Your task to perform on an android device: Do I have any events today? Image 0: 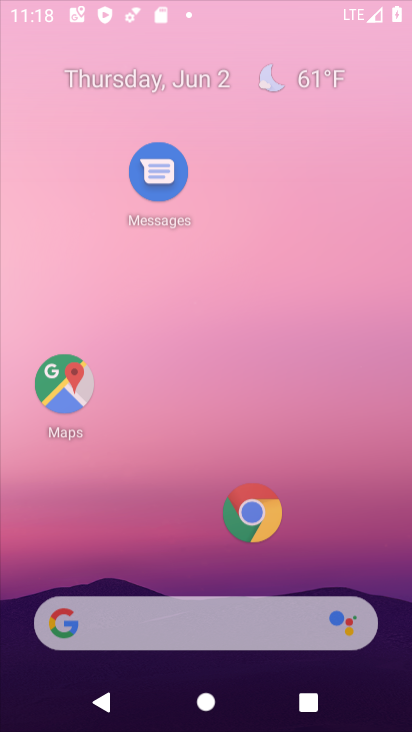
Step 0: press home button
Your task to perform on an android device: Do I have any events today? Image 1: 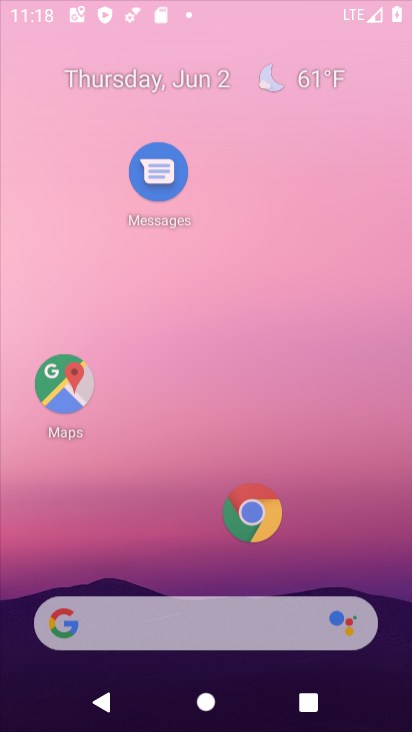
Step 1: click (315, 92)
Your task to perform on an android device: Do I have any events today? Image 2: 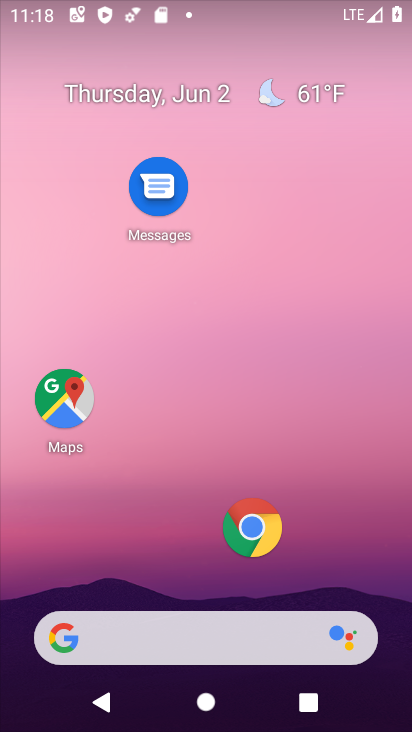
Step 2: click (315, 92)
Your task to perform on an android device: Do I have any events today? Image 3: 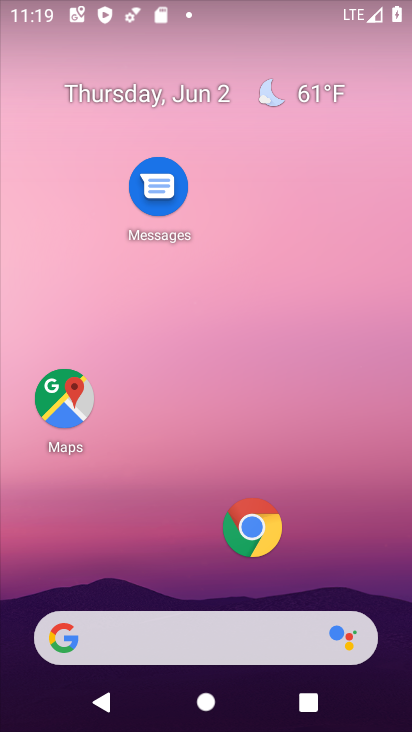
Step 3: drag from (206, 583) to (222, 6)
Your task to perform on an android device: Do I have any events today? Image 4: 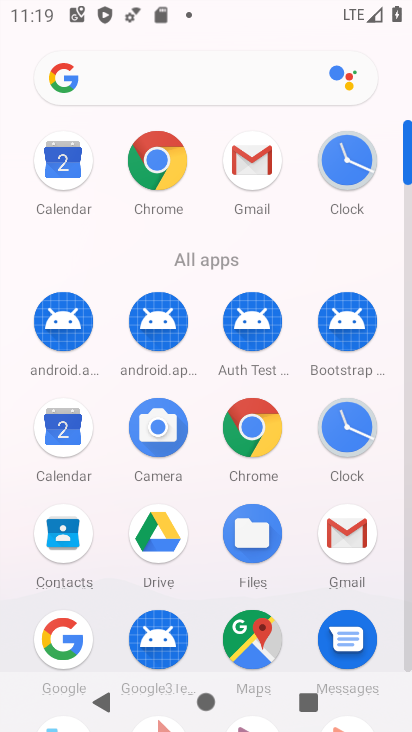
Step 4: click (62, 424)
Your task to perform on an android device: Do I have any events today? Image 5: 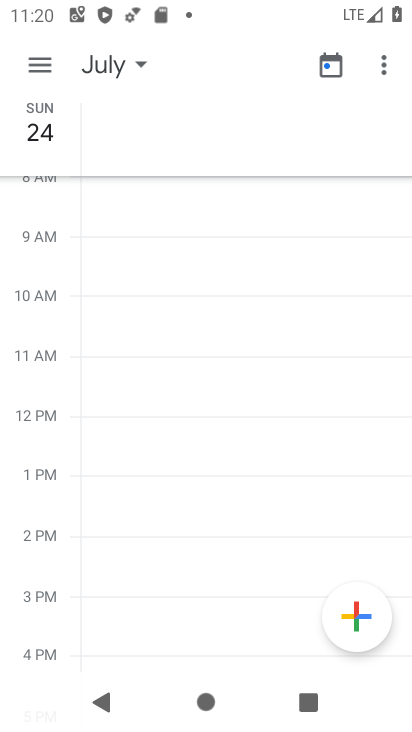
Step 5: click (141, 61)
Your task to perform on an android device: Do I have any events today? Image 6: 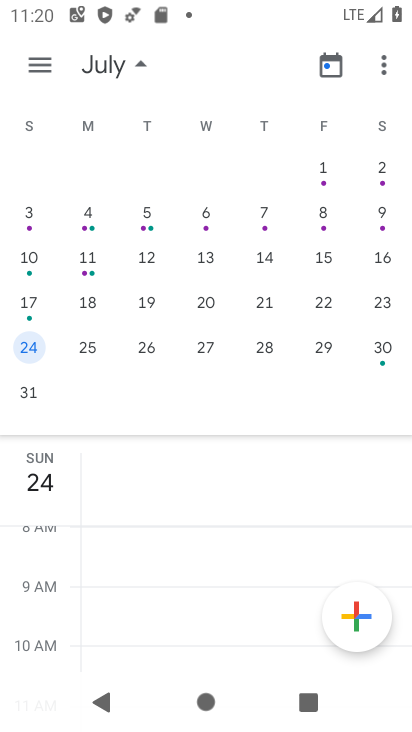
Step 6: click (136, 61)
Your task to perform on an android device: Do I have any events today? Image 7: 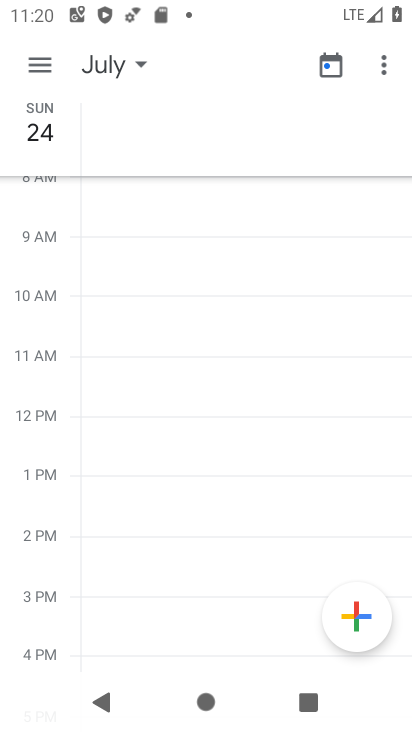
Step 7: click (137, 62)
Your task to perform on an android device: Do I have any events today? Image 8: 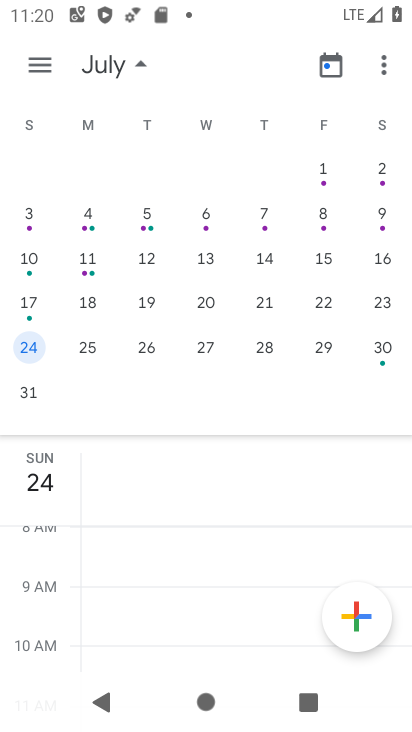
Step 8: drag from (31, 261) to (399, 290)
Your task to perform on an android device: Do I have any events today? Image 9: 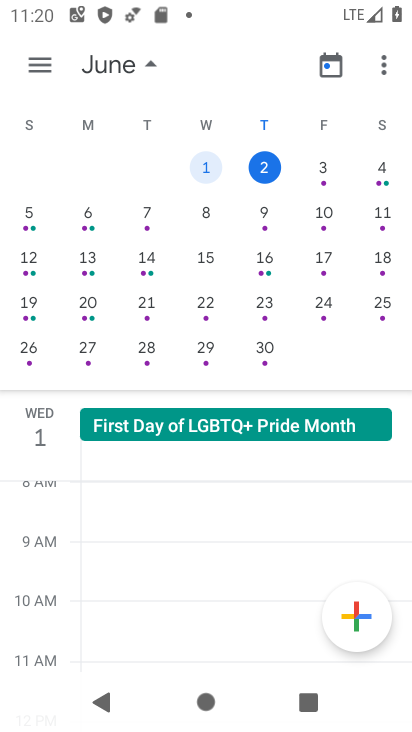
Step 9: click (261, 164)
Your task to perform on an android device: Do I have any events today? Image 10: 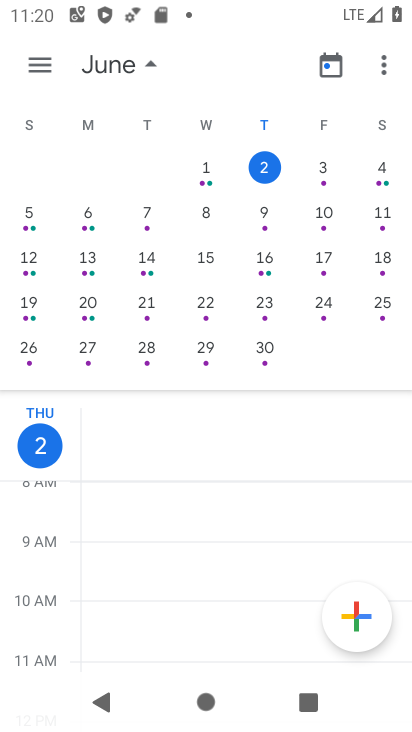
Step 10: click (145, 64)
Your task to perform on an android device: Do I have any events today? Image 11: 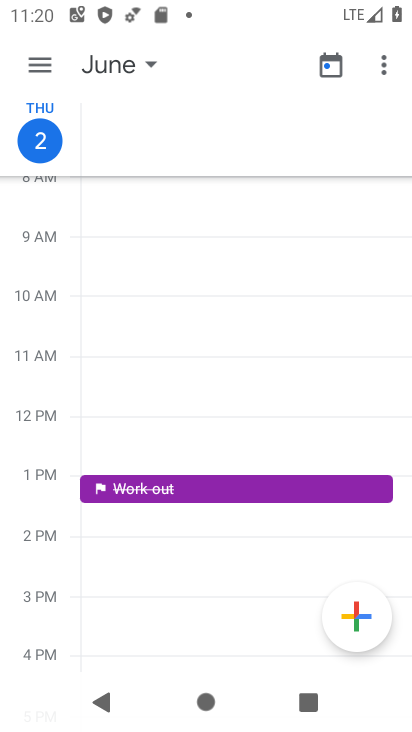
Step 11: task complete